Your task to perform on an android device: set an alarm Image 0: 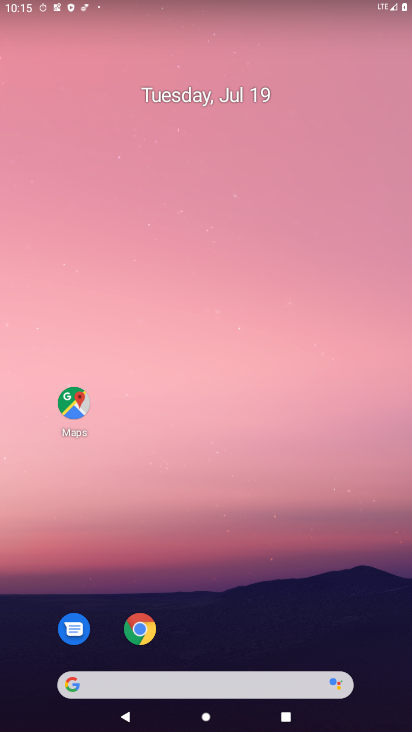
Step 0: drag from (215, 650) to (208, 6)
Your task to perform on an android device: set an alarm Image 1: 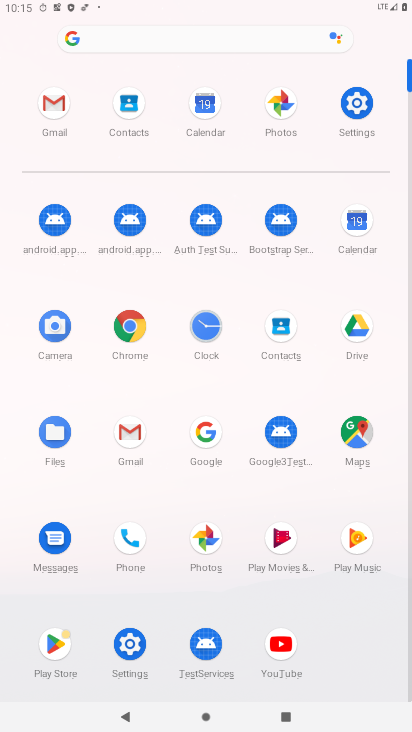
Step 1: click (209, 331)
Your task to perform on an android device: set an alarm Image 2: 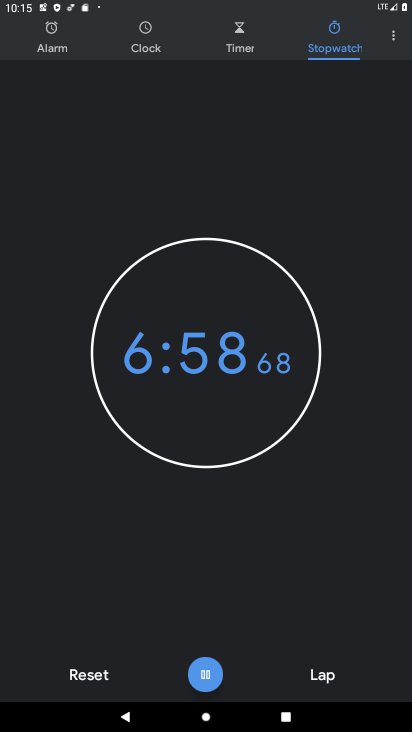
Step 2: click (97, 679)
Your task to perform on an android device: set an alarm Image 3: 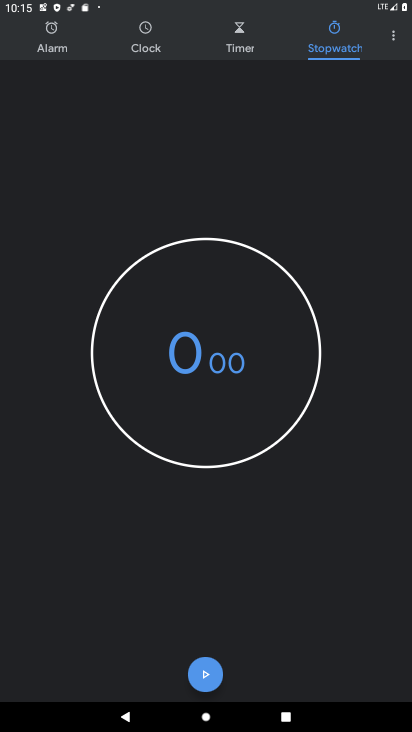
Step 3: click (52, 44)
Your task to perform on an android device: set an alarm Image 4: 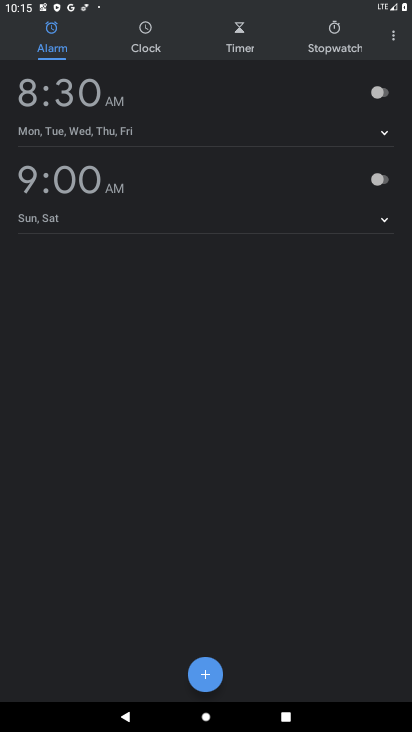
Step 4: click (387, 91)
Your task to perform on an android device: set an alarm Image 5: 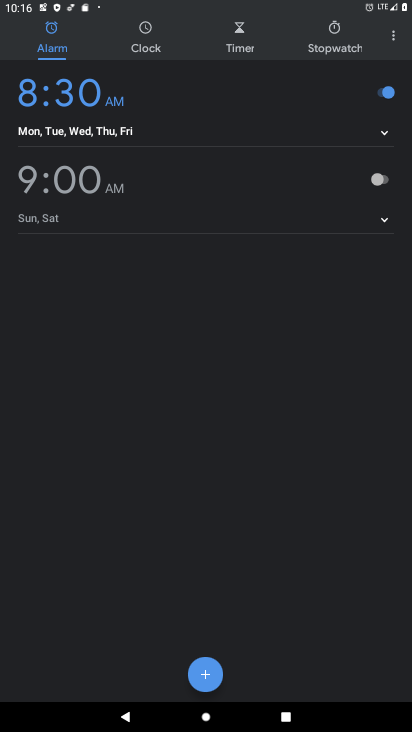
Step 5: task complete